Your task to perform on an android device: turn off data saver in the chrome app Image 0: 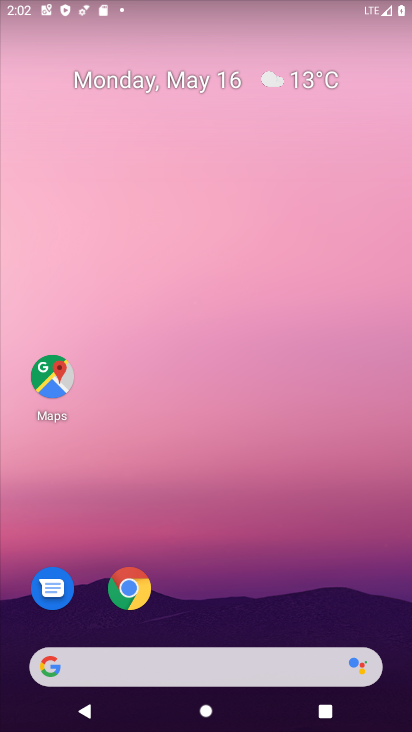
Step 0: click (147, 576)
Your task to perform on an android device: turn off data saver in the chrome app Image 1: 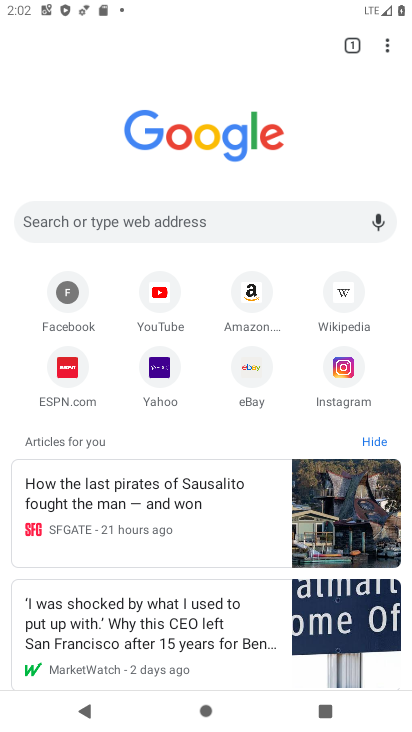
Step 1: drag from (396, 58) to (319, 391)
Your task to perform on an android device: turn off data saver in the chrome app Image 2: 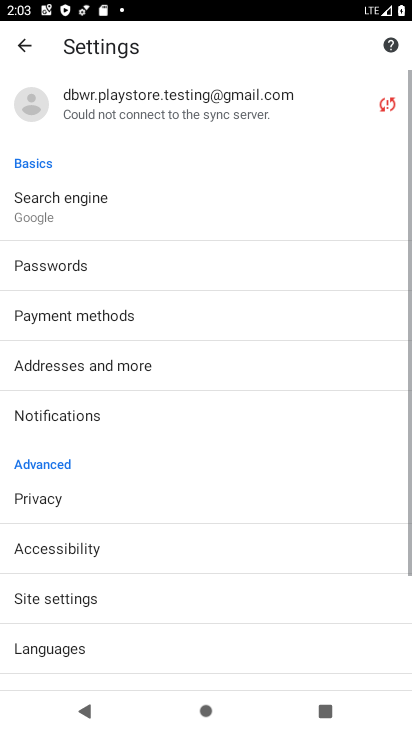
Step 2: drag from (196, 609) to (333, 379)
Your task to perform on an android device: turn off data saver in the chrome app Image 3: 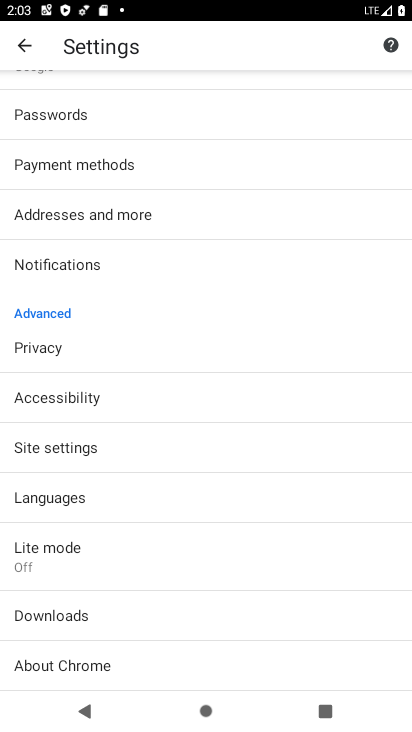
Step 3: click (136, 555)
Your task to perform on an android device: turn off data saver in the chrome app Image 4: 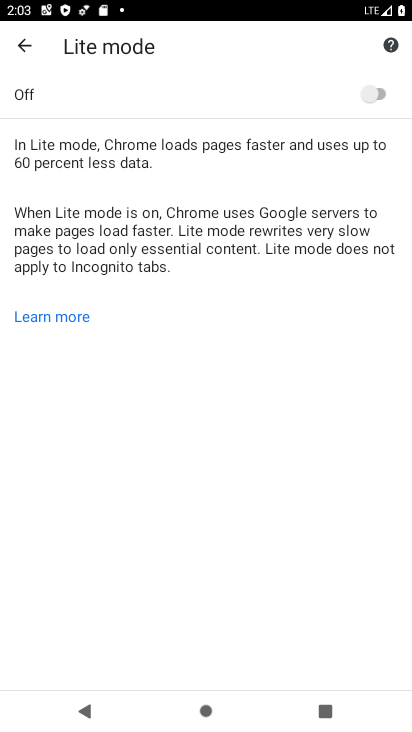
Step 4: task complete